Your task to perform on an android device: Open calendar and show me the second week of next month Image 0: 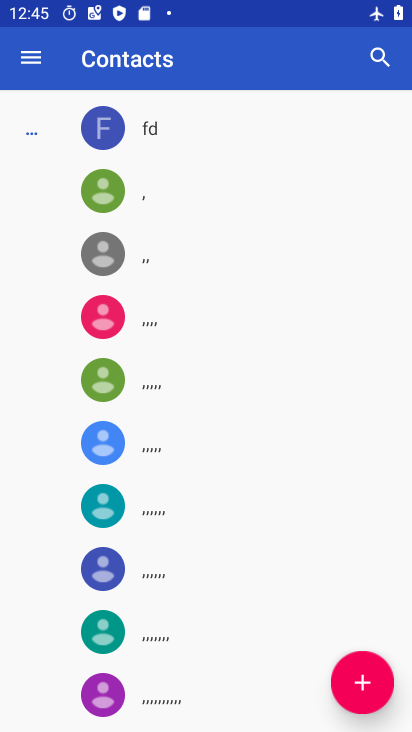
Step 0: press home button
Your task to perform on an android device: Open calendar and show me the second week of next month Image 1: 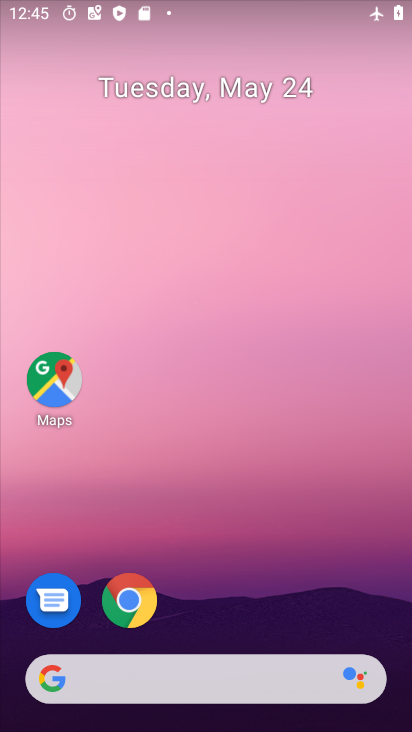
Step 1: drag from (305, 565) to (223, 179)
Your task to perform on an android device: Open calendar and show me the second week of next month Image 2: 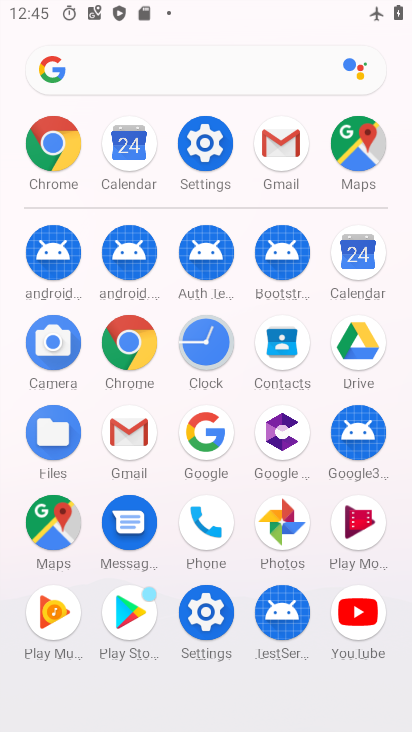
Step 2: click (366, 243)
Your task to perform on an android device: Open calendar and show me the second week of next month Image 3: 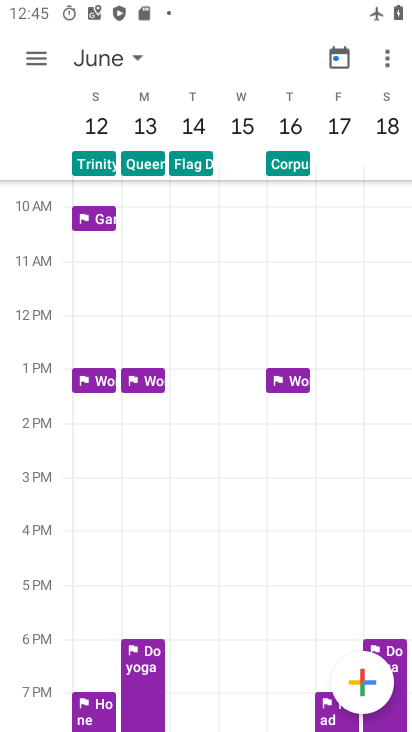
Step 3: click (84, 63)
Your task to perform on an android device: Open calendar and show me the second week of next month Image 4: 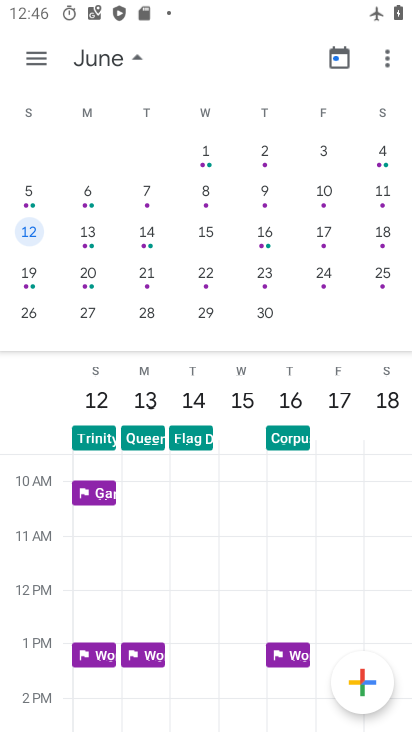
Step 4: click (37, 233)
Your task to perform on an android device: Open calendar and show me the second week of next month Image 5: 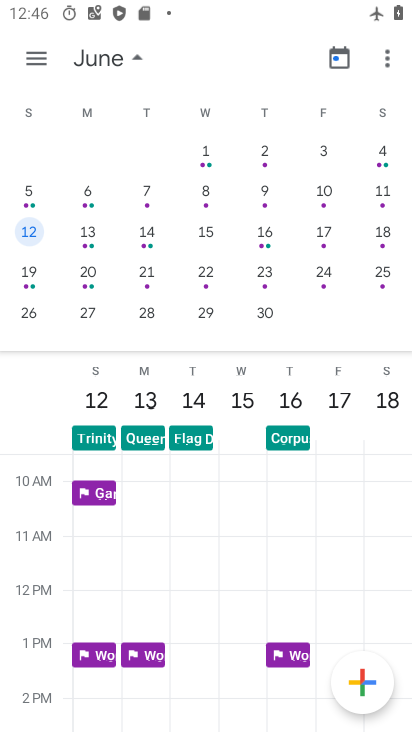
Step 5: task complete